Your task to perform on an android device: Open eBay Image 0: 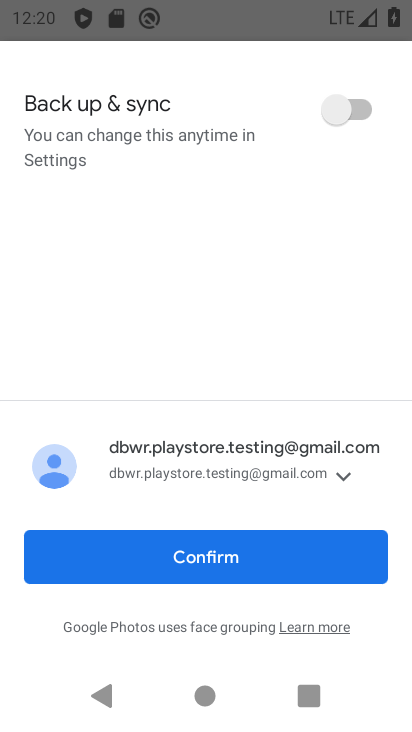
Step 0: press home button
Your task to perform on an android device: Open eBay Image 1: 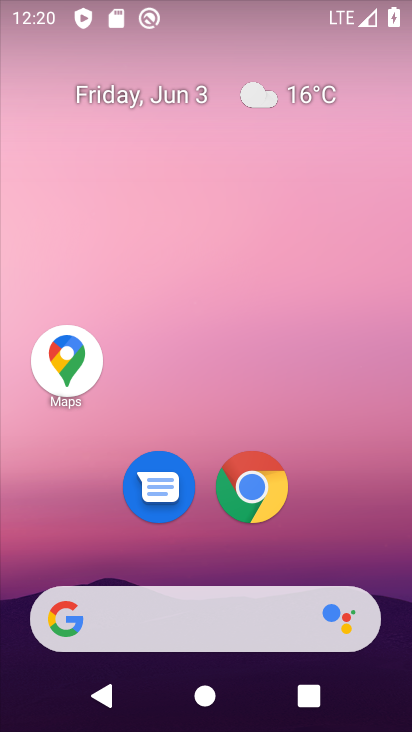
Step 1: click (148, 623)
Your task to perform on an android device: Open eBay Image 2: 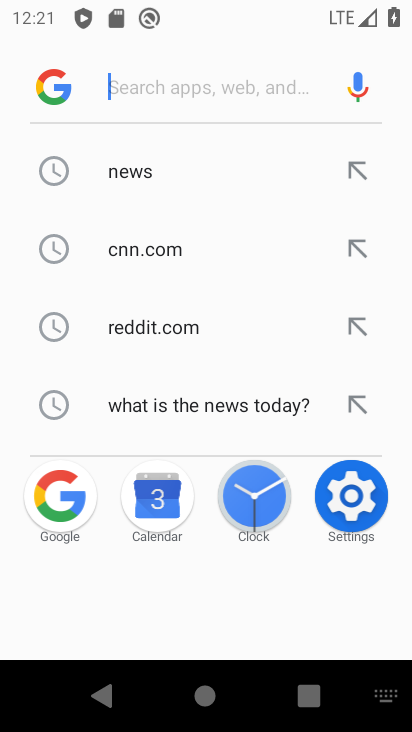
Step 2: type "eBay"
Your task to perform on an android device: Open eBay Image 3: 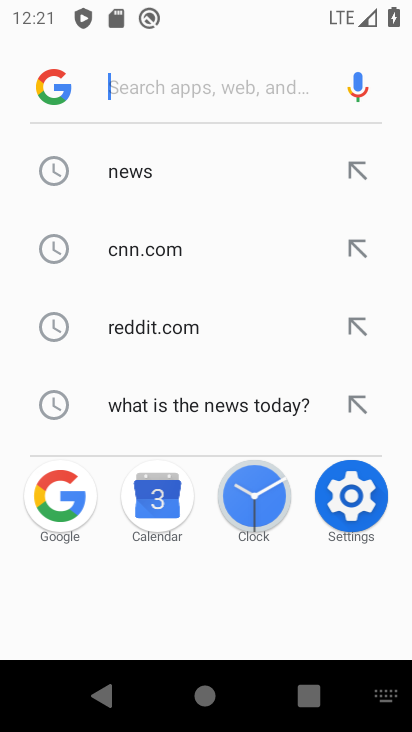
Step 3: click (166, 97)
Your task to perform on an android device: Open eBay Image 4: 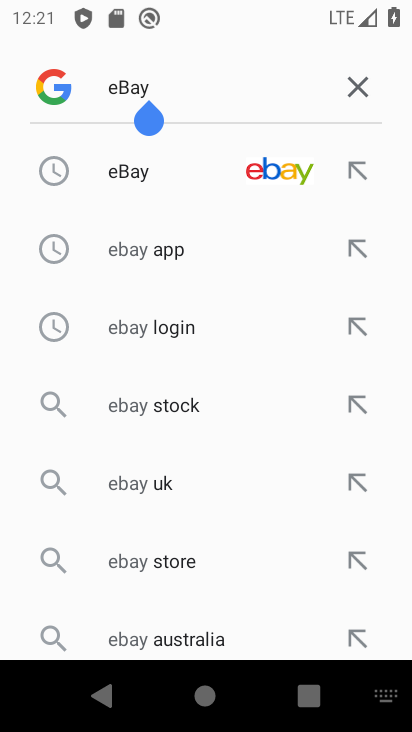
Step 4: click (262, 171)
Your task to perform on an android device: Open eBay Image 5: 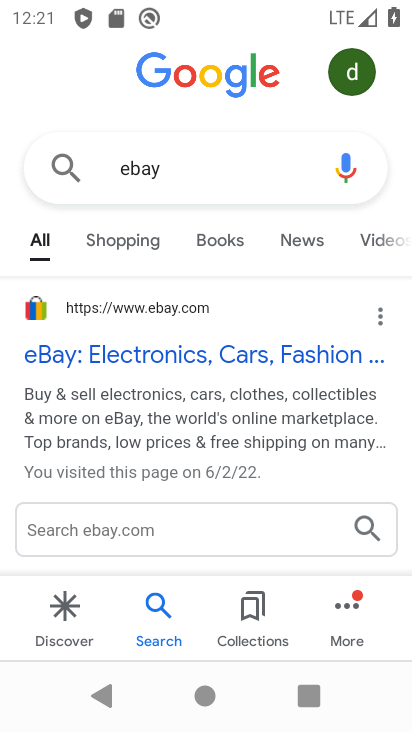
Step 5: click (73, 355)
Your task to perform on an android device: Open eBay Image 6: 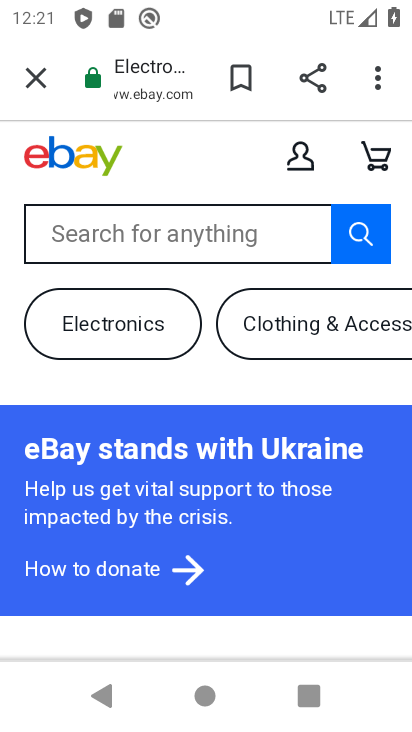
Step 6: task complete